Your task to perform on an android device: open a bookmark in the chrome app Image 0: 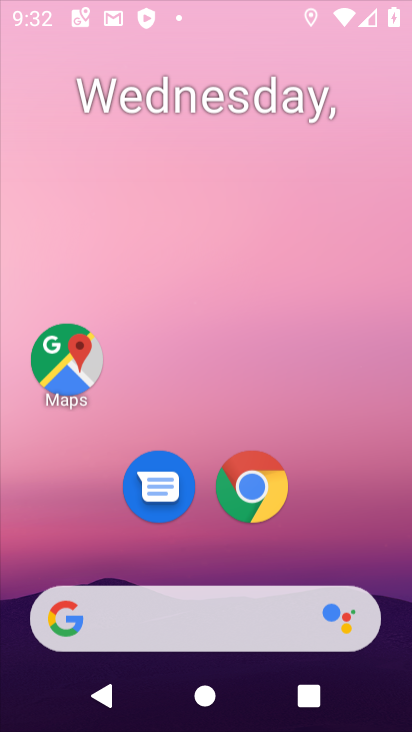
Step 0: click (56, 367)
Your task to perform on an android device: open a bookmark in the chrome app Image 1: 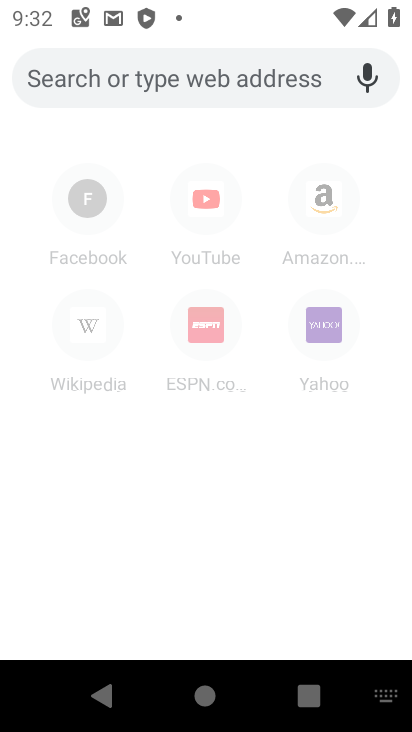
Step 1: press back button
Your task to perform on an android device: open a bookmark in the chrome app Image 2: 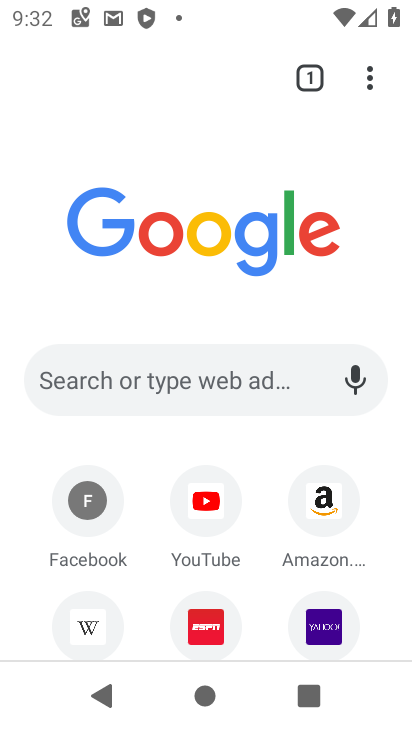
Step 2: press back button
Your task to perform on an android device: open a bookmark in the chrome app Image 3: 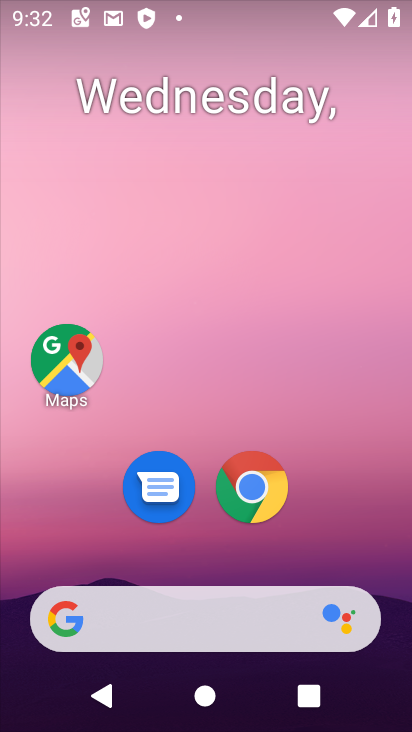
Step 3: click (230, 487)
Your task to perform on an android device: open a bookmark in the chrome app Image 4: 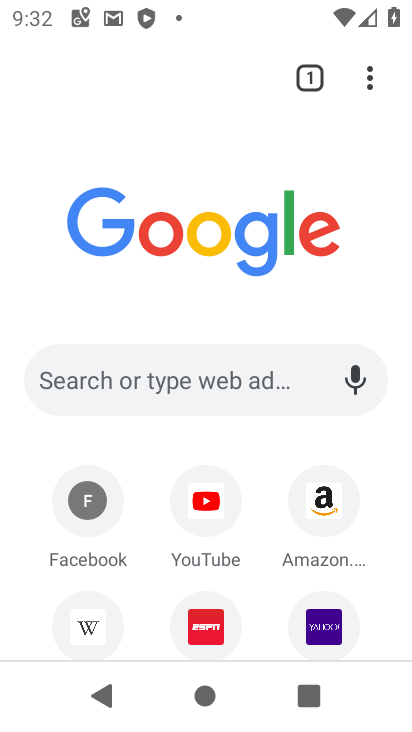
Step 4: drag from (371, 69) to (129, 291)
Your task to perform on an android device: open a bookmark in the chrome app Image 5: 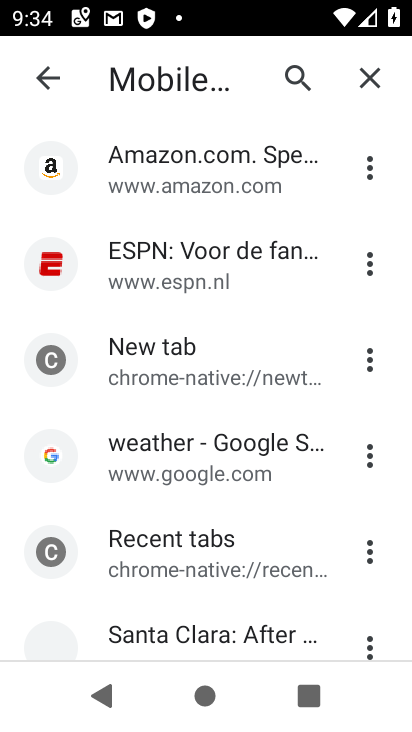
Step 5: click (130, 258)
Your task to perform on an android device: open a bookmark in the chrome app Image 6: 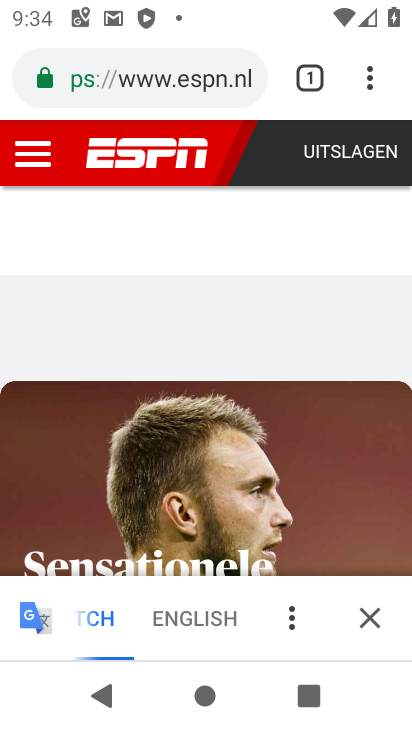
Step 6: task complete